Your task to perform on an android device: Open internet settings Image 0: 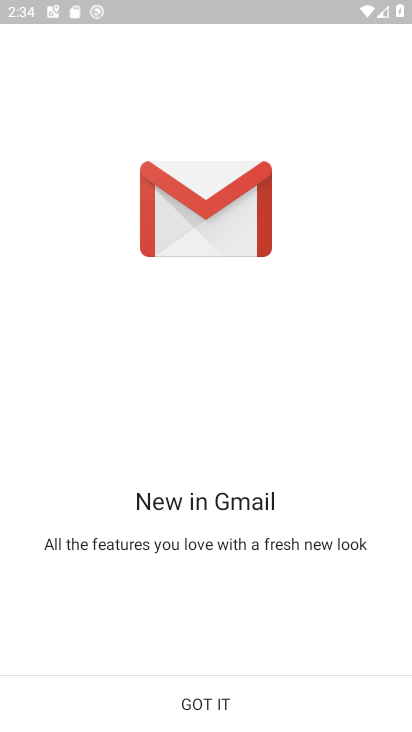
Step 0: press home button
Your task to perform on an android device: Open internet settings Image 1: 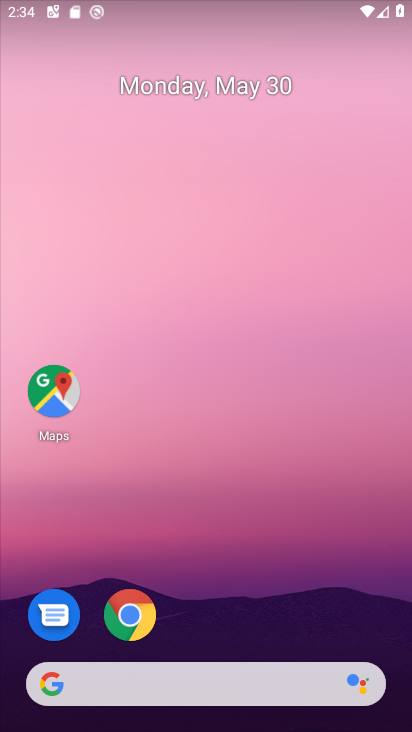
Step 1: drag from (219, 553) to (302, 2)
Your task to perform on an android device: Open internet settings Image 2: 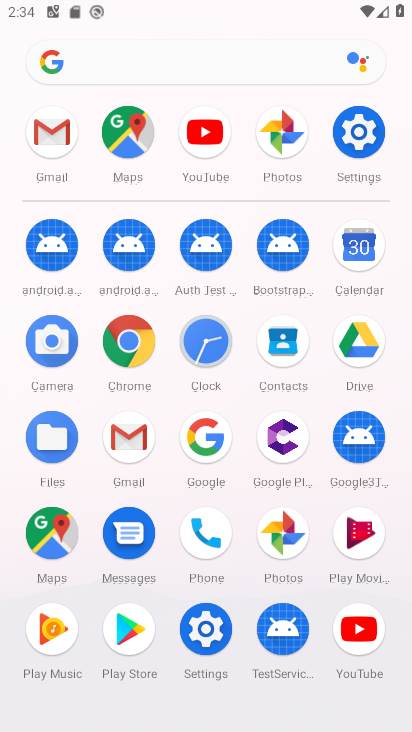
Step 2: click (368, 139)
Your task to perform on an android device: Open internet settings Image 3: 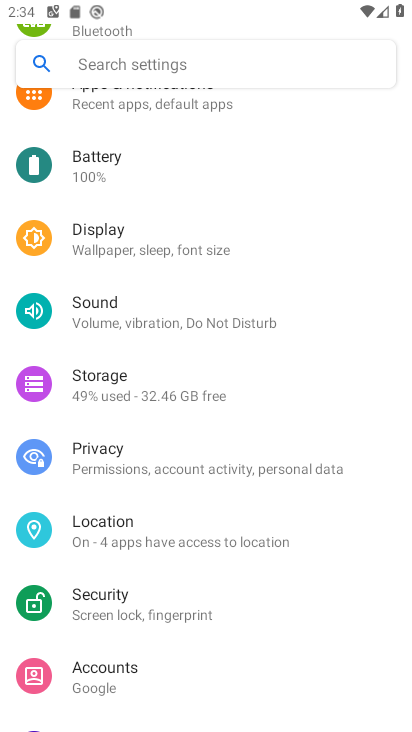
Step 3: drag from (244, 266) to (190, 540)
Your task to perform on an android device: Open internet settings Image 4: 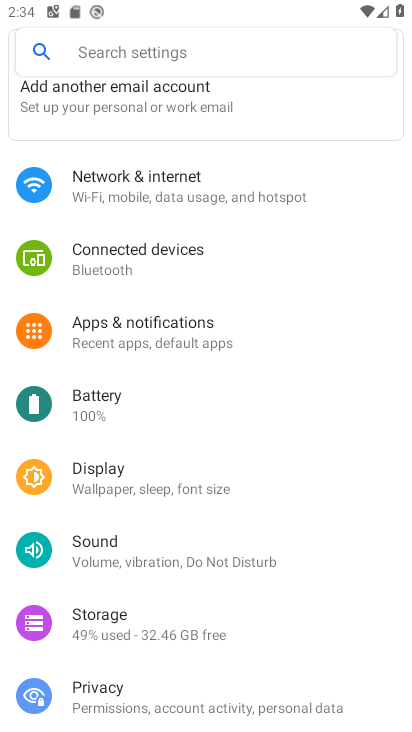
Step 4: click (226, 185)
Your task to perform on an android device: Open internet settings Image 5: 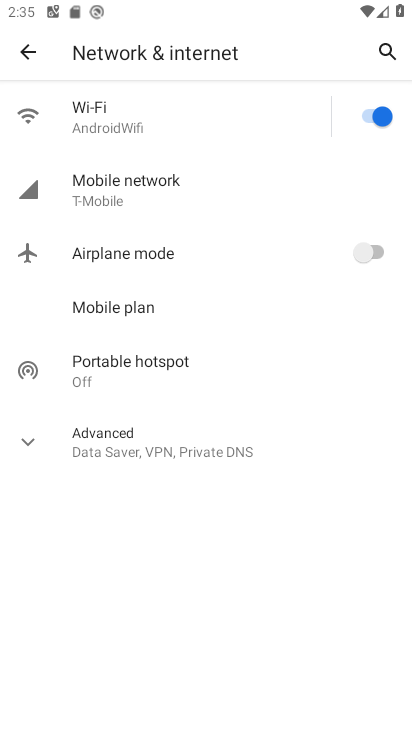
Step 5: task complete